Your task to perform on an android device: What's on my calendar tomorrow? Image 0: 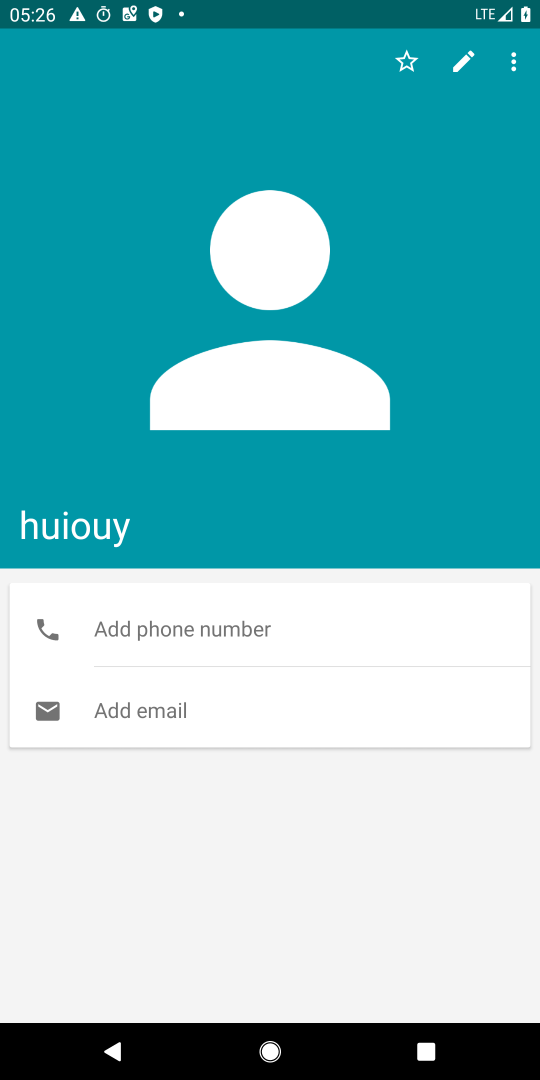
Step 0: press home button
Your task to perform on an android device: What's on my calendar tomorrow? Image 1: 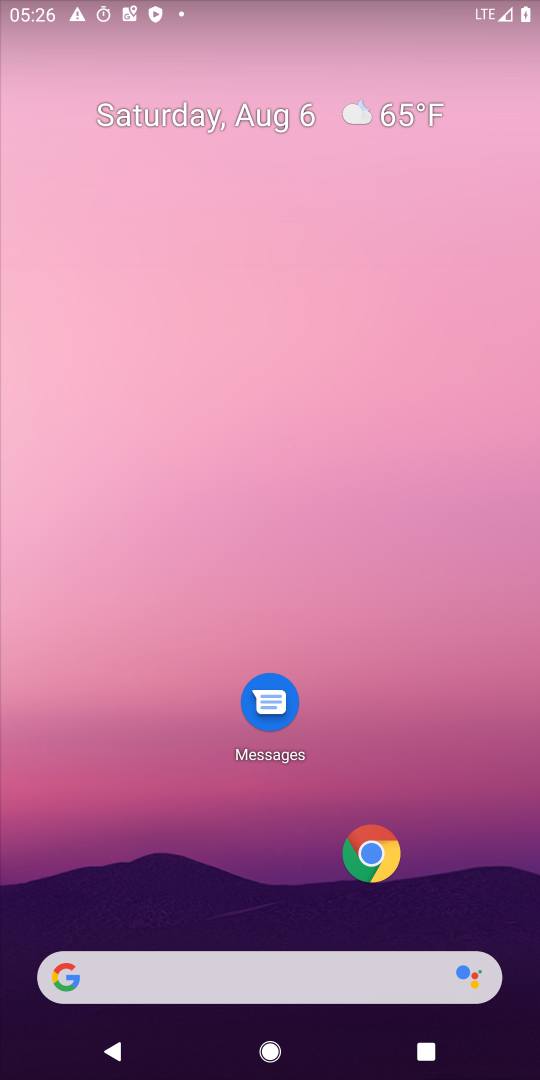
Step 1: drag from (458, 806) to (358, 112)
Your task to perform on an android device: What's on my calendar tomorrow? Image 2: 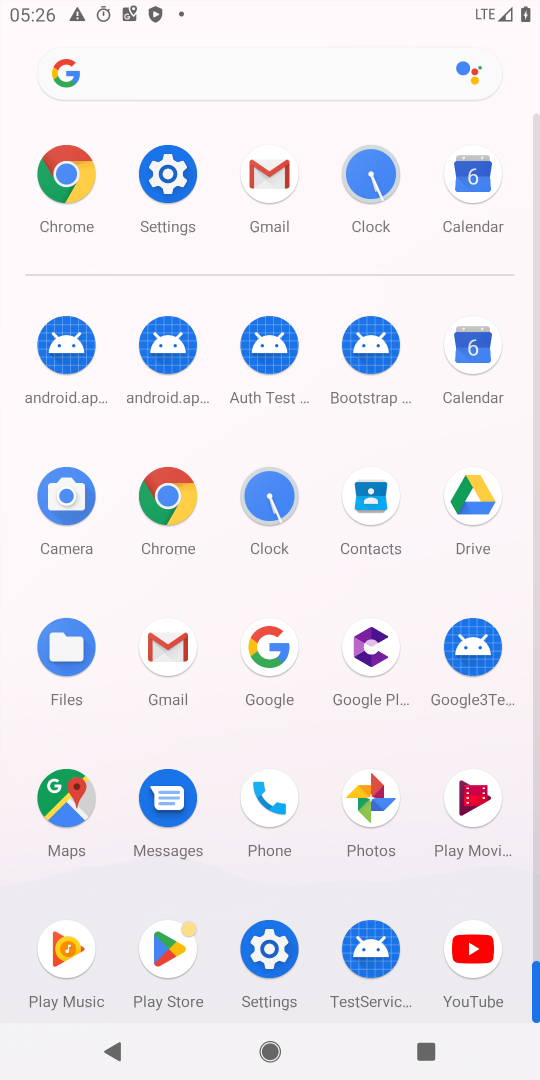
Step 2: click (474, 342)
Your task to perform on an android device: What's on my calendar tomorrow? Image 3: 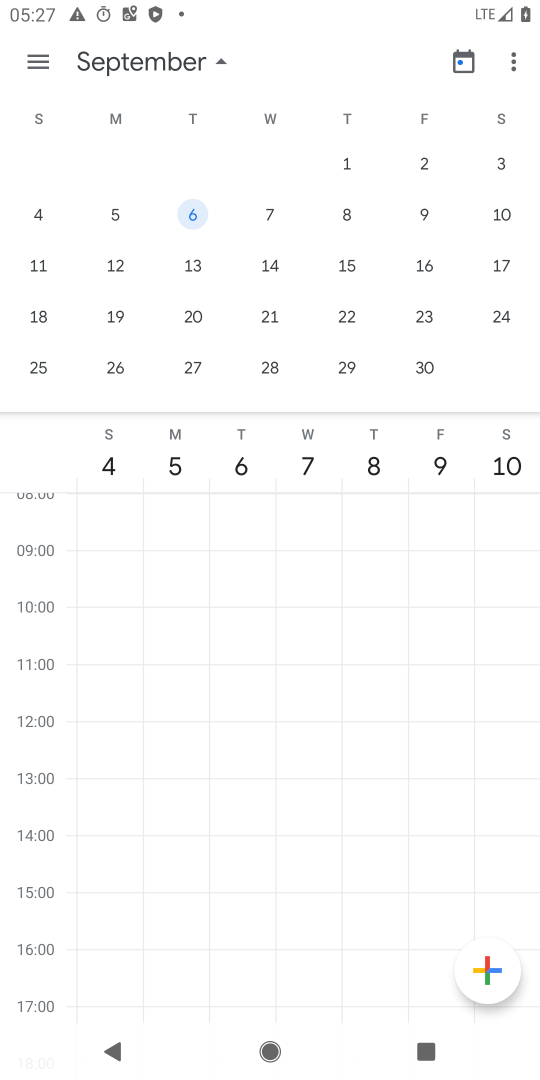
Step 3: click (185, 61)
Your task to perform on an android device: What's on my calendar tomorrow? Image 4: 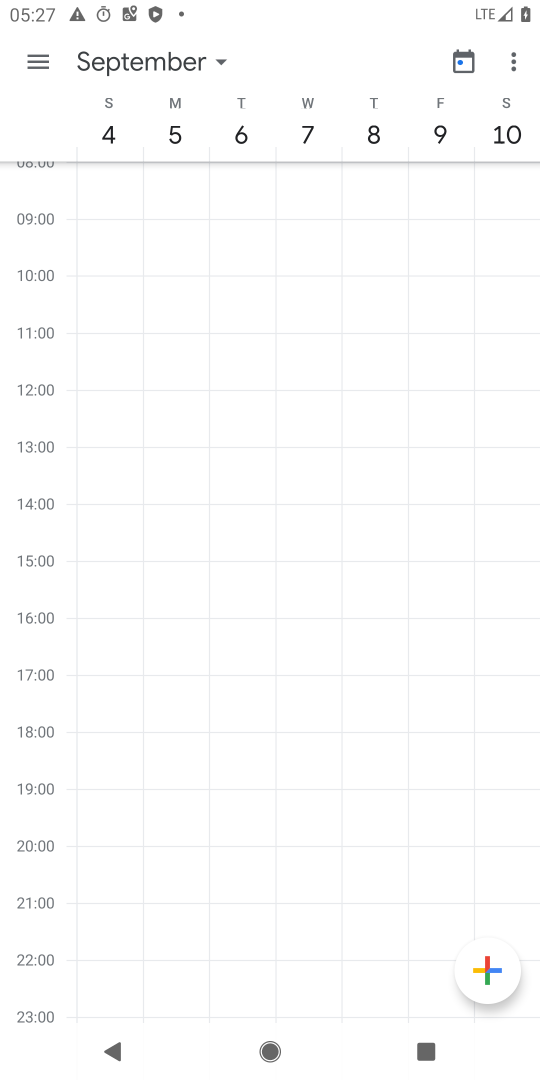
Step 4: click (163, 57)
Your task to perform on an android device: What's on my calendar tomorrow? Image 5: 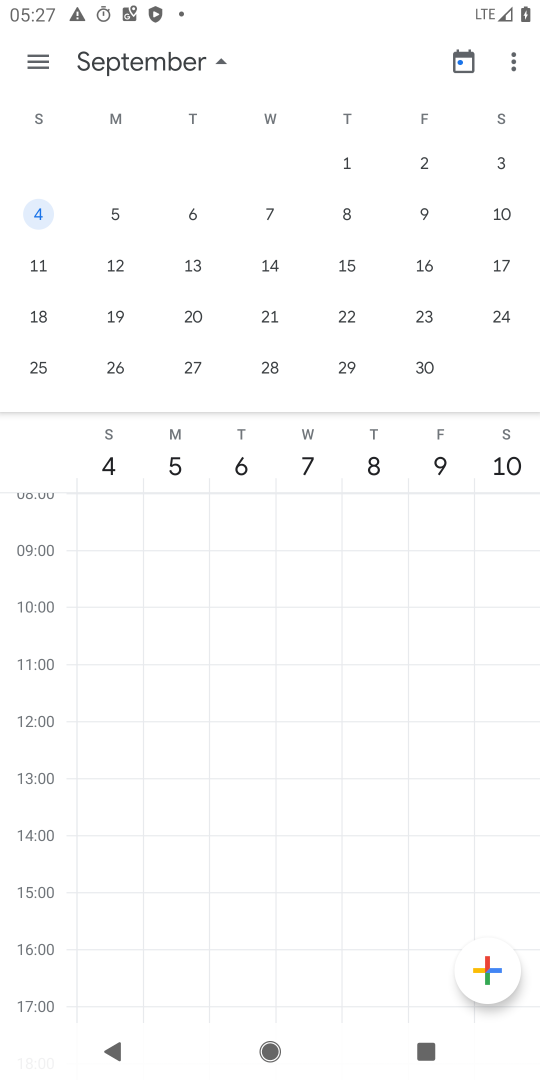
Step 5: drag from (106, 282) to (539, 269)
Your task to perform on an android device: What's on my calendar tomorrow? Image 6: 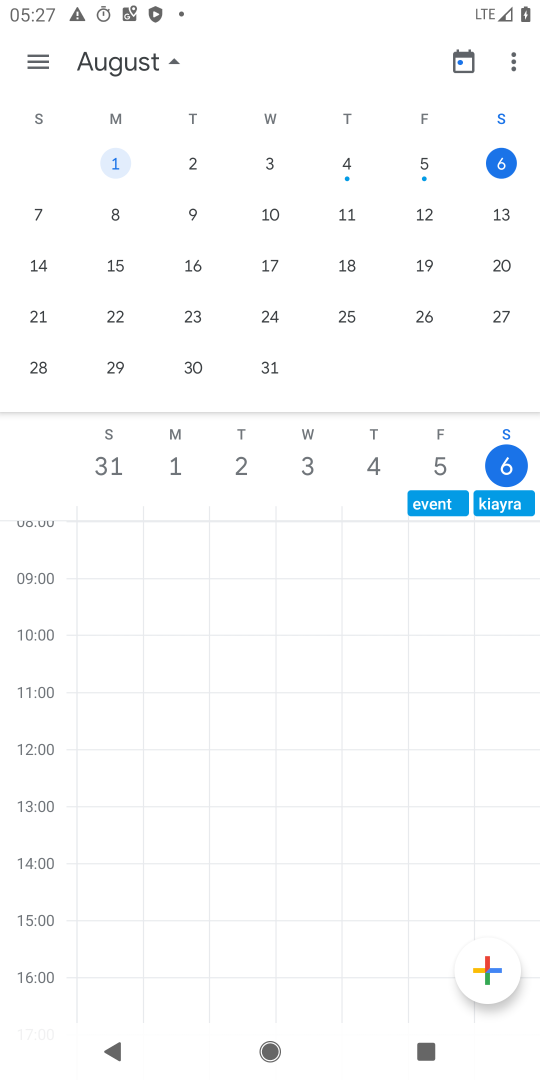
Step 6: click (39, 213)
Your task to perform on an android device: What's on my calendar tomorrow? Image 7: 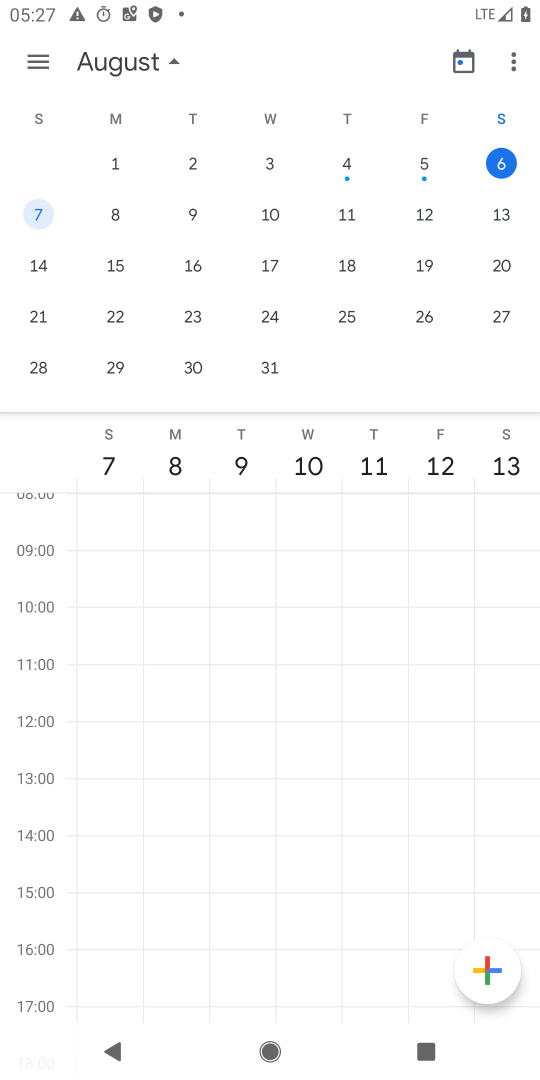
Step 7: click (45, 43)
Your task to perform on an android device: What's on my calendar tomorrow? Image 8: 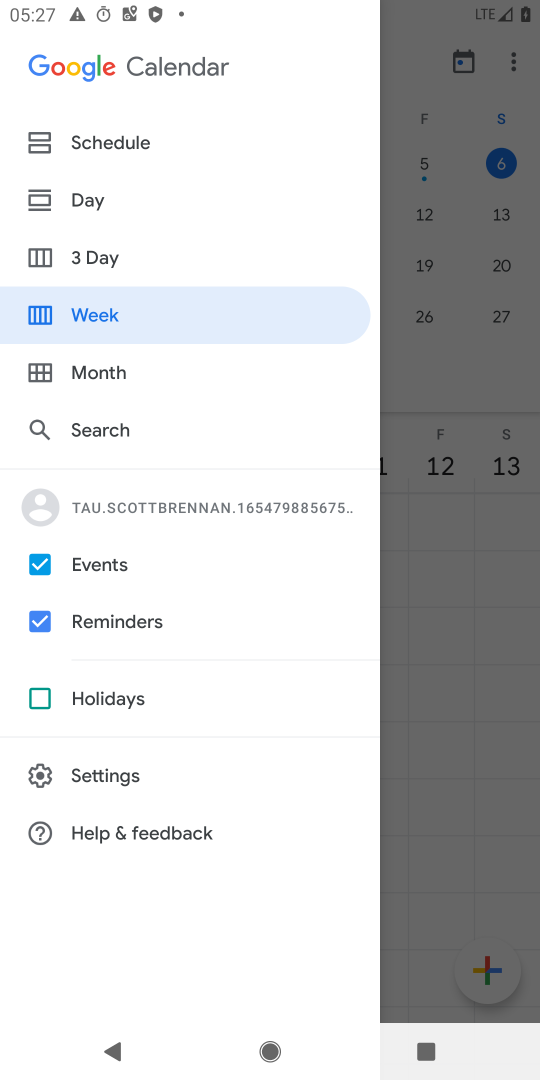
Step 8: click (86, 201)
Your task to perform on an android device: What's on my calendar tomorrow? Image 9: 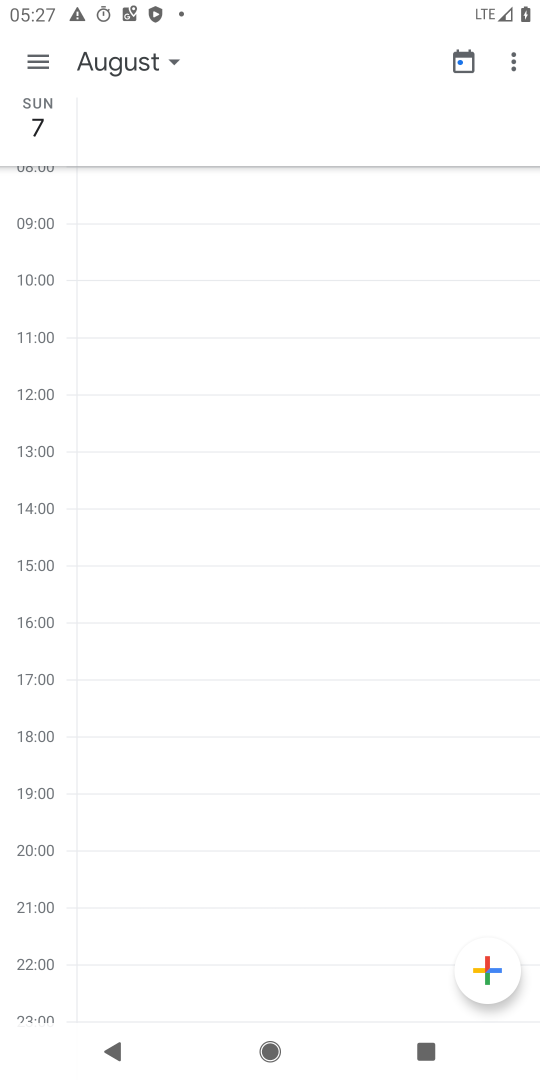
Step 9: task complete